Your task to perform on an android device: change timer sound Image 0: 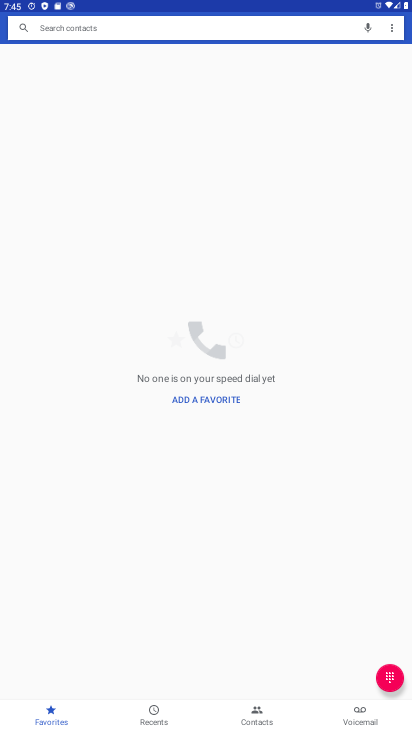
Step 0: press home button
Your task to perform on an android device: change timer sound Image 1: 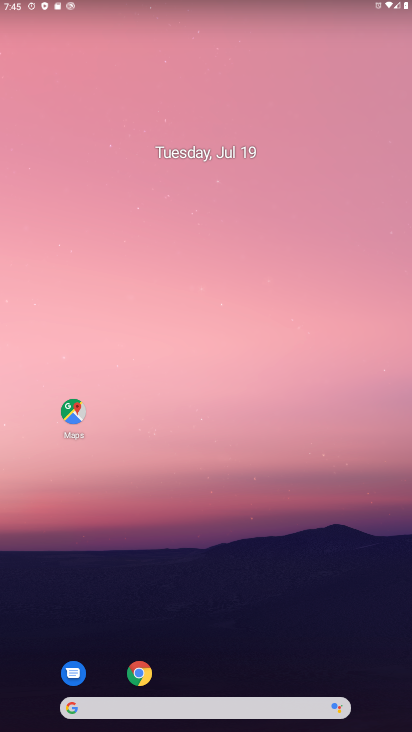
Step 1: drag from (260, 617) to (314, 0)
Your task to perform on an android device: change timer sound Image 2: 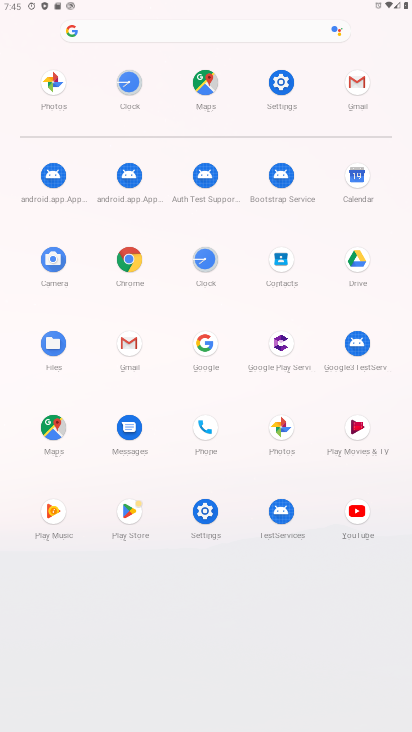
Step 2: click (202, 265)
Your task to perform on an android device: change timer sound Image 3: 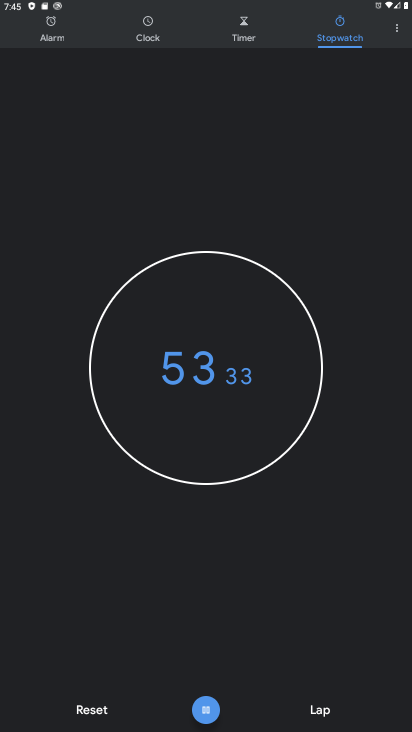
Step 3: click (388, 21)
Your task to perform on an android device: change timer sound Image 4: 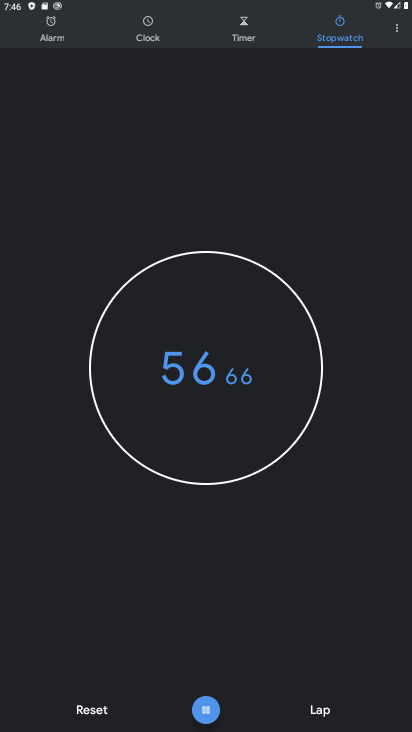
Step 4: click (398, 17)
Your task to perform on an android device: change timer sound Image 5: 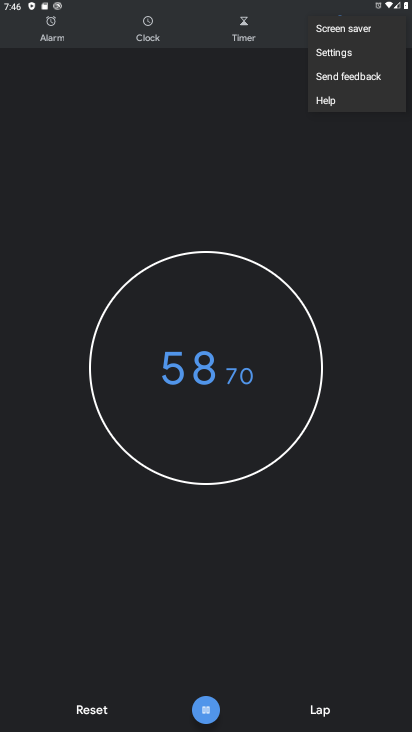
Step 5: click (341, 47)
Your task to perform on an android device: change timer sound Image 6: 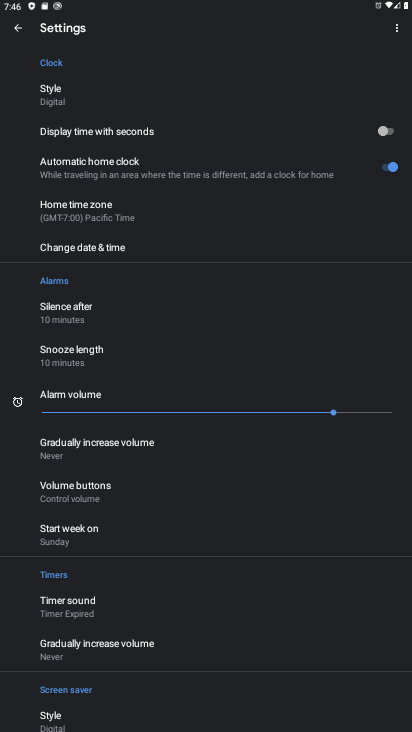
Step 6: click (80, 613)
Your task to perform on an android device: change timer sound Image 7: 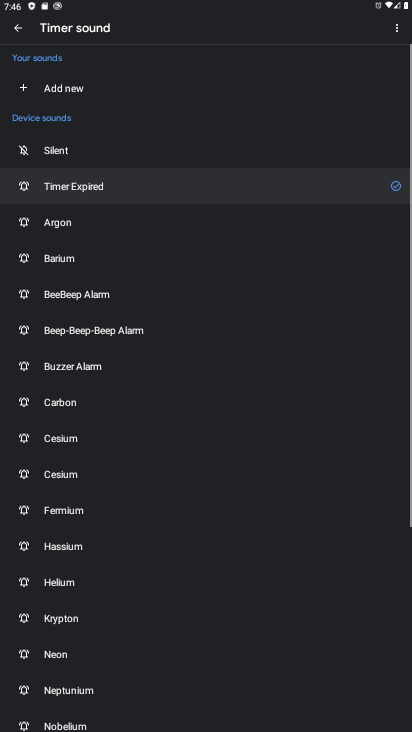
Step 7: click (107, 331)
Your task to perform on an android device: change timer sound Image 8: 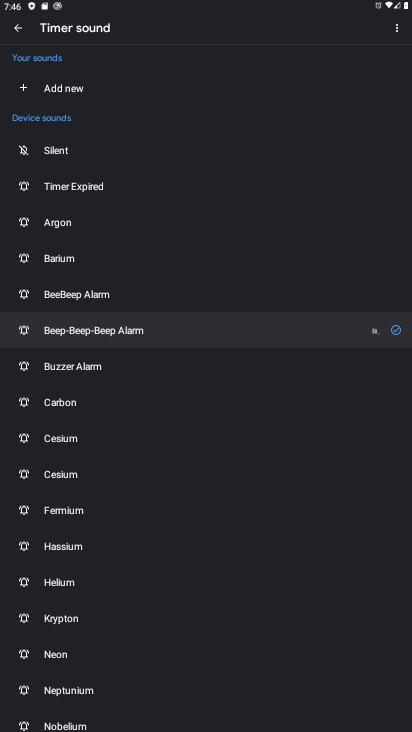
Step 8: task complete